Your task to perform on an android device: turn on priority inbox in the gmail app Image 0: 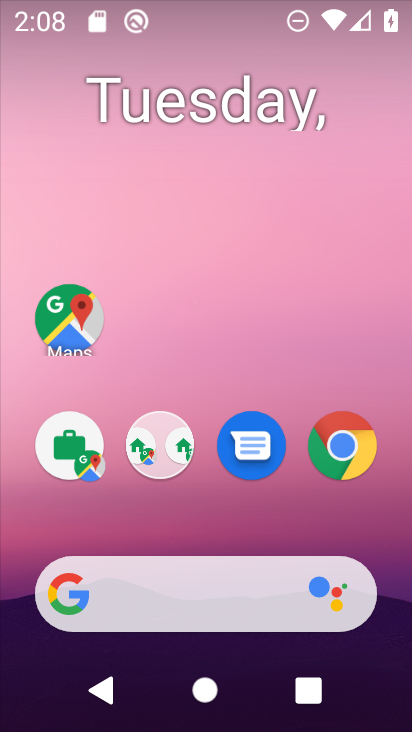
Step 0: drag from (229, 542) to (240, 200)
Your task to perform on an android device: turn on priority inbox in the gmail app Image 1: 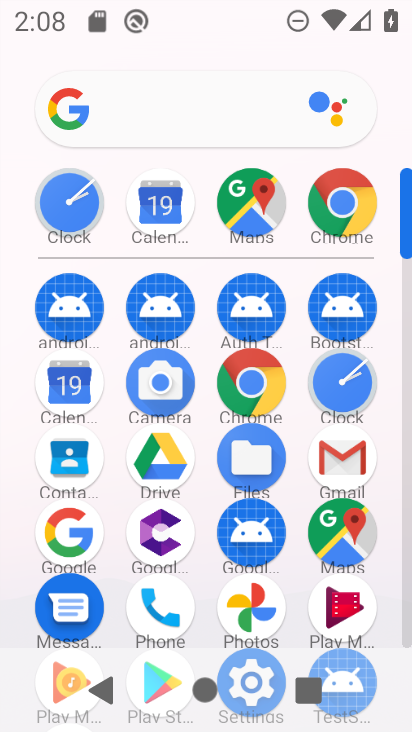
Step 1: click (337, 454)
Your task to perform on an android device: turn on priority inbox in the gmail app Image 2: 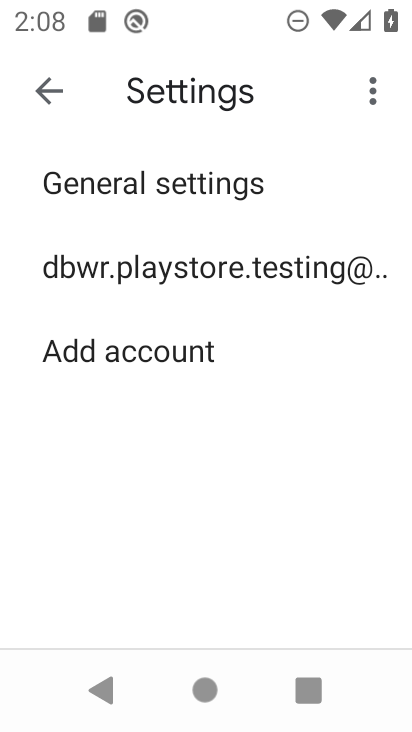
Step 2: click (162, 282)
Your task to perform on an android device: turn on priority inbox in the gmail app Image 3: 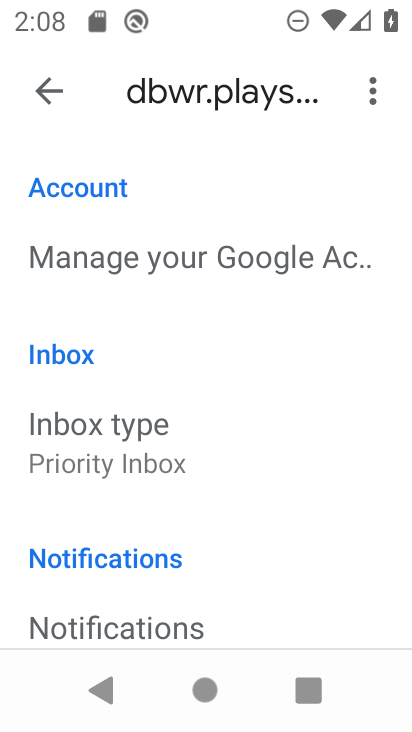
Step 3: click (156, 465)
Your task to perform on an android device: turn on priority inbox in the gmail app Image 4: 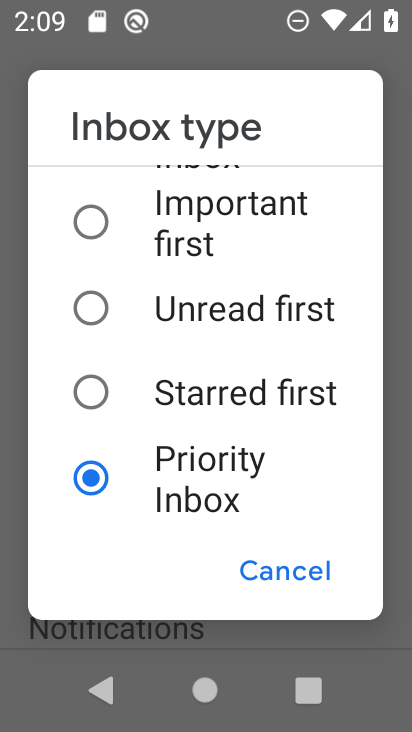
Step 4: task complete